Your task to perform on an android device: turn on the 12-hour format for clock Image 0: 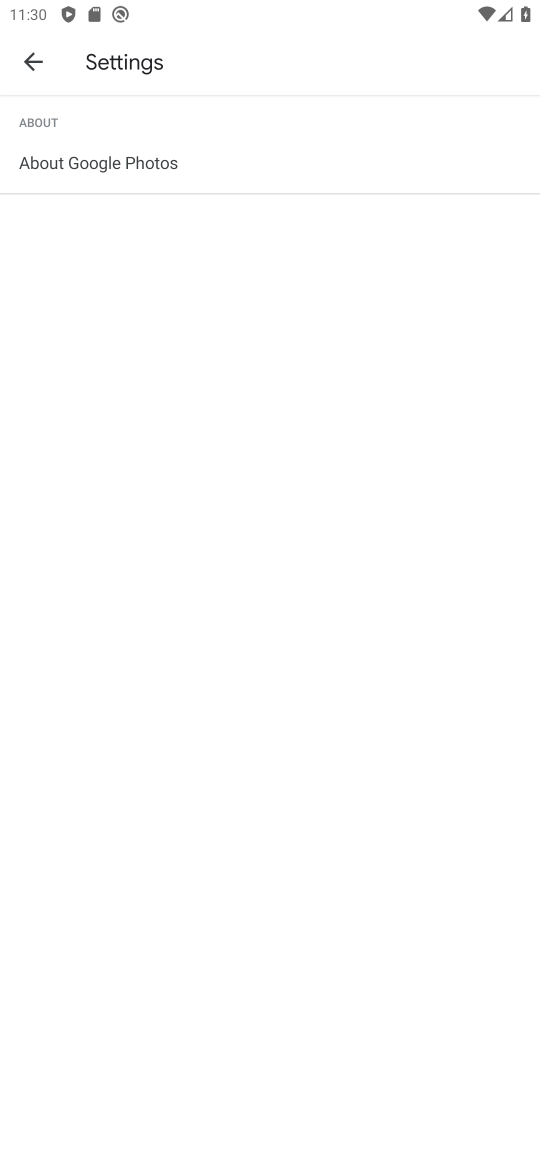
Step 0: task complete